Your task to perform on an android device: Open calendar and show me the first week of next month Image 0: 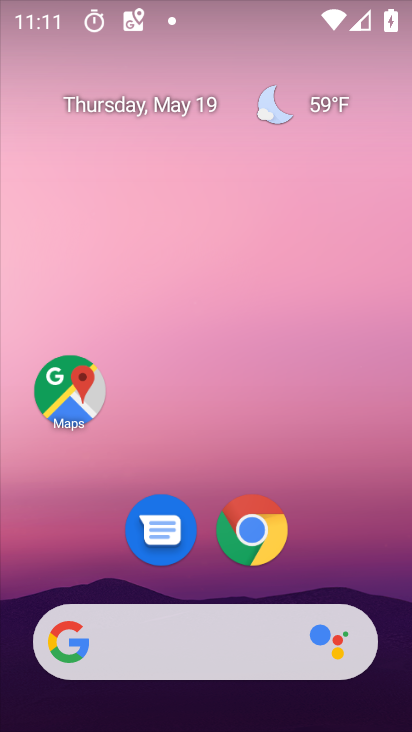
Step 0: drag from (363, 563) to (384, 101)
Your task to perform on an android device: Open calendar and show me the first week of next month Image 1: 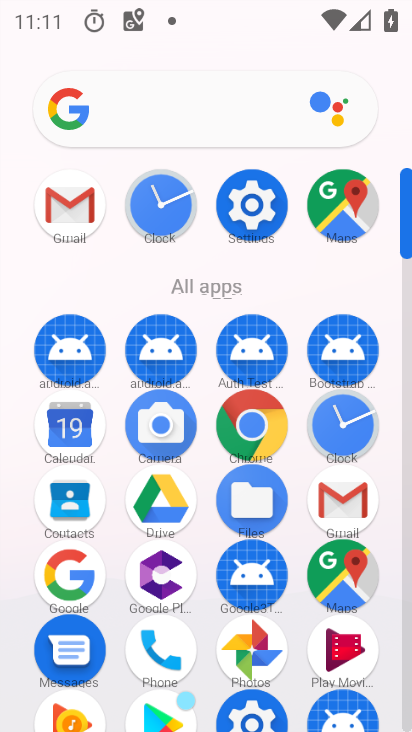
Step 1: click (66, 425)
Your task to perform on an android device: Open calendar and show me the first week of next month Image 2: 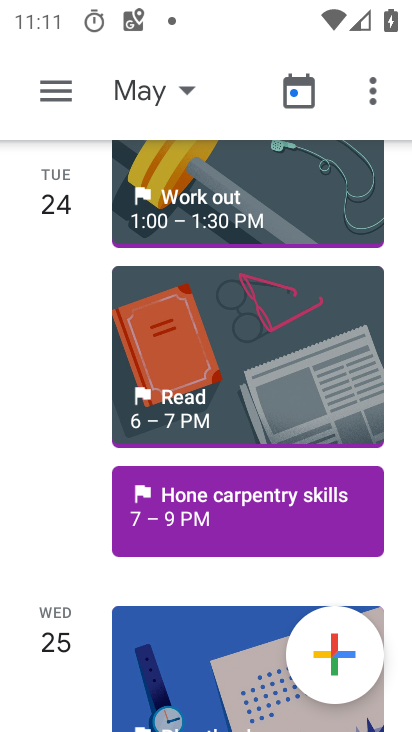
Step 2: click (141, 96)
Your task to perform on an android device: Open calendar and show me the first week of next month Image 3: 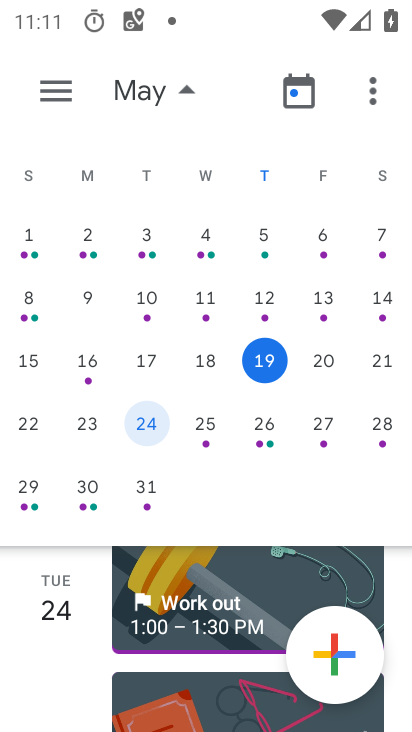
Step 3: drag from (366, 276) to (46, 266)
Your task to perform on an android device: Open calendar and show me the first week of next month Image 4: 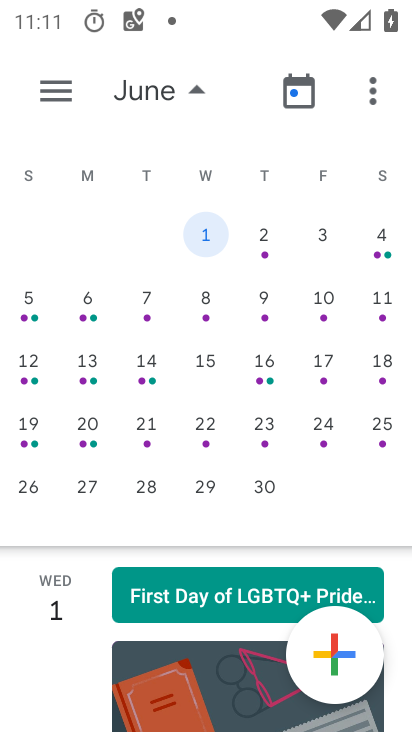
Step 4: click (215, 242)
Your task to perform on an android device: Open calendar and show me the first week of next month Image 5: 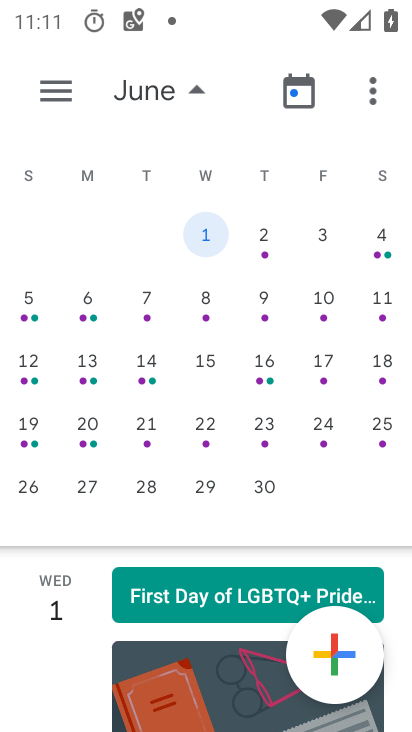
Step 5: task complete